Your task to perform on an android device: Search for the new nike shoes on Target Image 0: 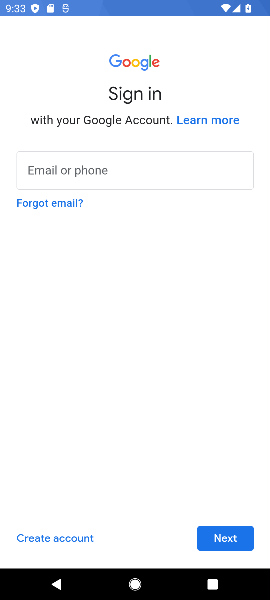
Step 0: press home button
Your task to perform on an android device: Search for the new nike shoes on Target Image 1: 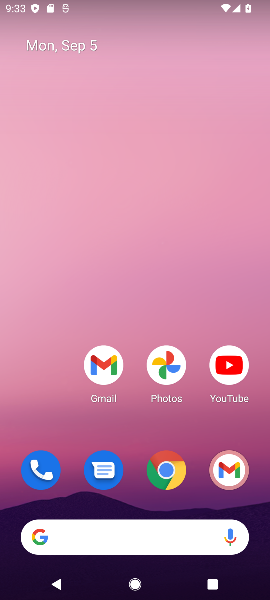
Step 1: click (105, 537)
Your task to perform on an android device: Search for the new nike shoes on Target Image 2: 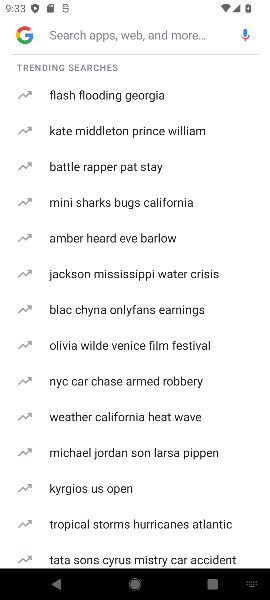
Step 2: type "target"
Your task to perform on an android device: Search for the new nike shoes on Target Image 3: 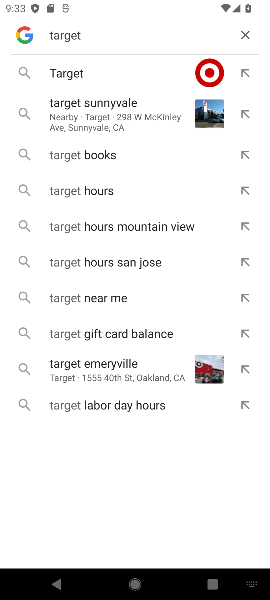
Step 3: click (69, 71)
Your task to perform on an android device: Search for the new nike shoes on Target Image 4: 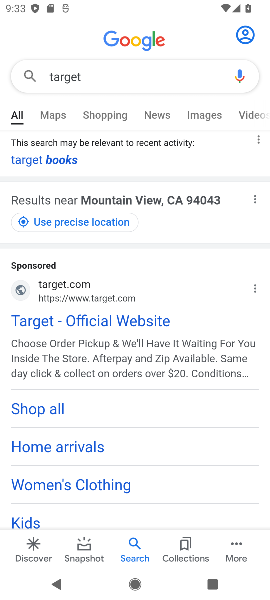
Step 4: click (38, 316)
Your task to perform on an android device: Search for the new nike shoes on Target Image 5: 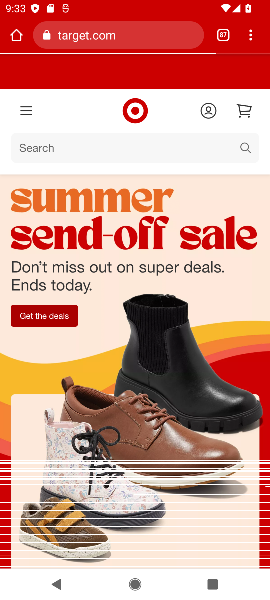
Step 5: click (60, 139)
Your task to perform on an android device: Search for the new nike shoes on Target Image 6: 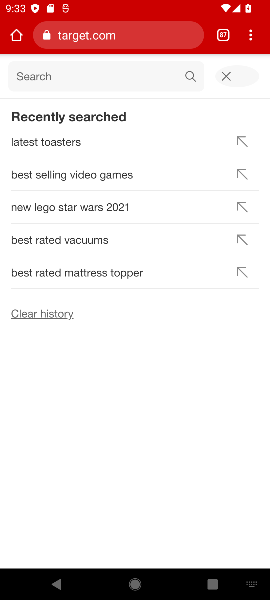
Step 6: type "new nike shoes"
Your task to perform on an android device: Search for the new nike shoes on Target Image 7: 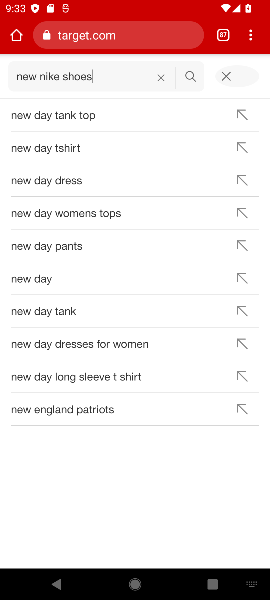
Step 7: click (188, 68)
Your task to perform on an android device: Search for the new nike shoes on Target Image 8: 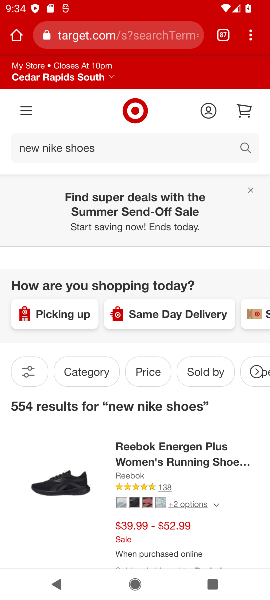
Step 8: task complete